Your task to perform on an android device: snooze an email in the gmail app Image 0: 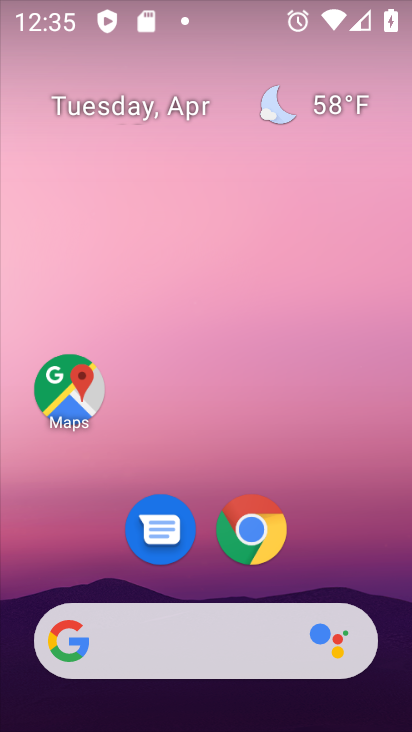
Step 0: drag from (394, 607) to (288, 139)
Your task to perform on an android device: snooze an email in the gmail app Image 1: 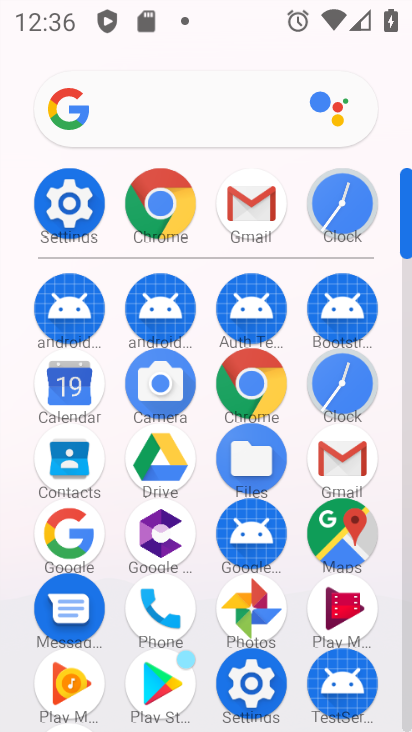
Step 1: click (341, 465)
Your task to perform on an android device: snooze an email in the gmail app Image 2: 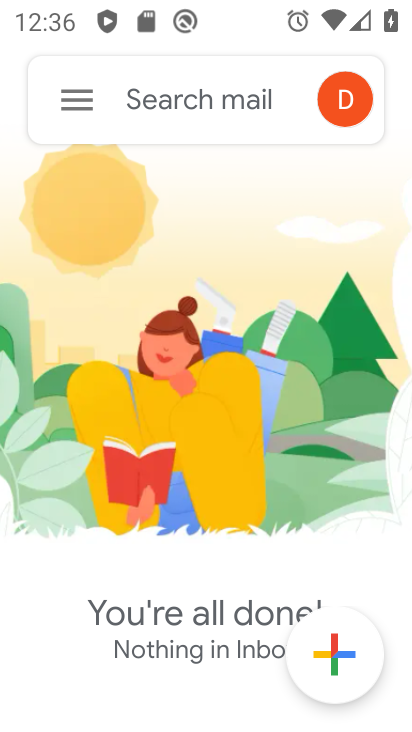
Step 2: task complete